Your task to perform on an android device: star an email in the gmail app Image 0: 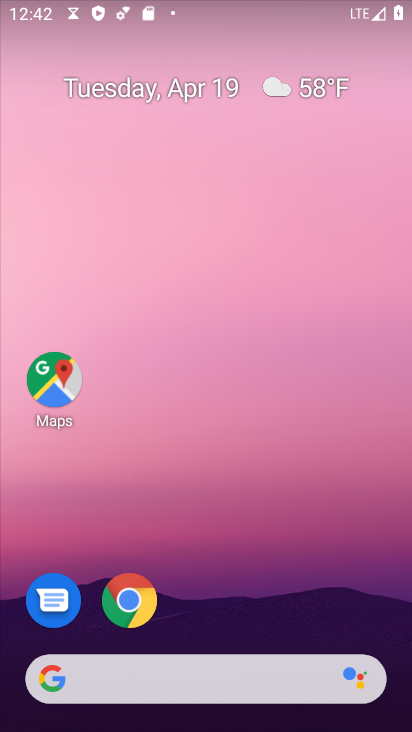
Step 0: drag from (229, 670) to (210, 151)
Your task to perform on an android device: star an email in the gmail app Image 1: 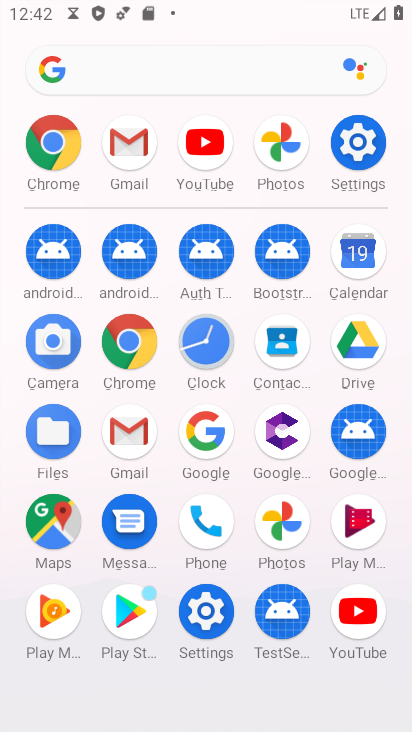
Step 1: click (118, 436)
Your task to perform on an android device: star an email in the gmail app Image 2: 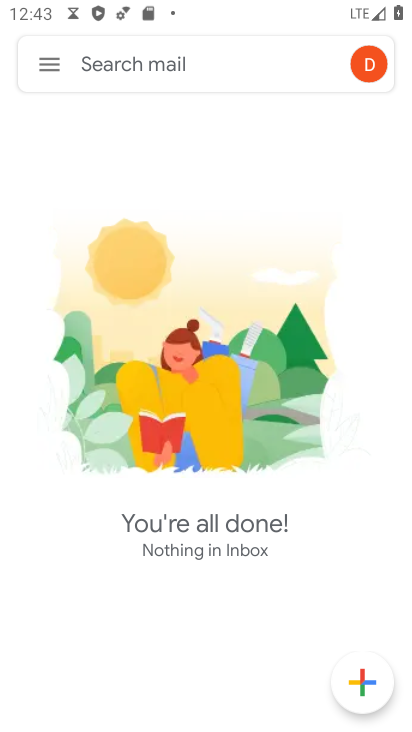
Step 2: click (51, 67)
Your task to perform on an android device: star an email in the gmail app Image 3: 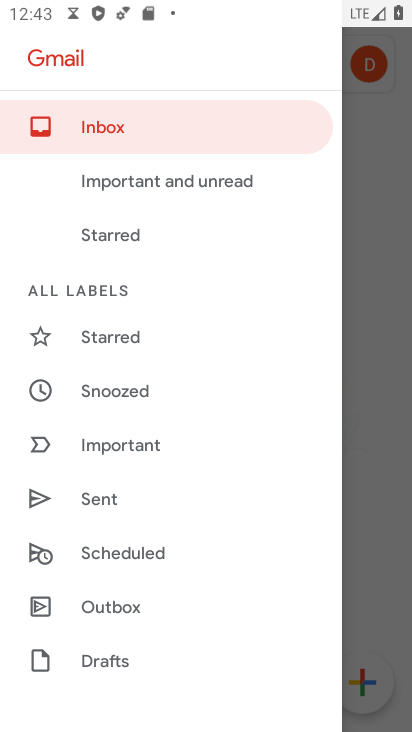
Step 3: drag from (98, 659) to (94, 326)
Your task to perform on an android device: star an email in the gmail app Image 4: 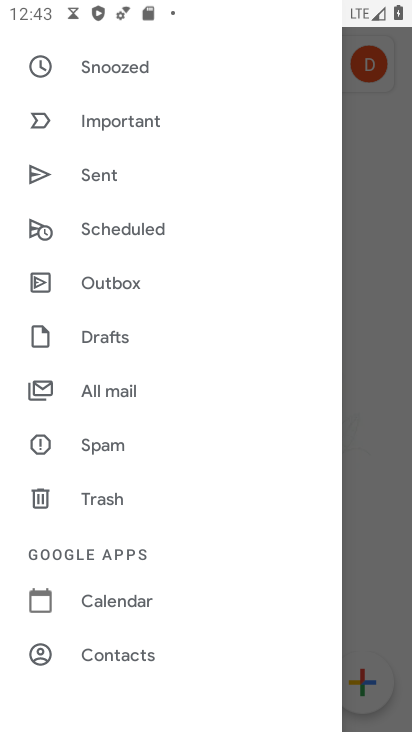
Step 4: click (120, 399)
Your task to perform on an android device: star an email in the gmail app Image 5: 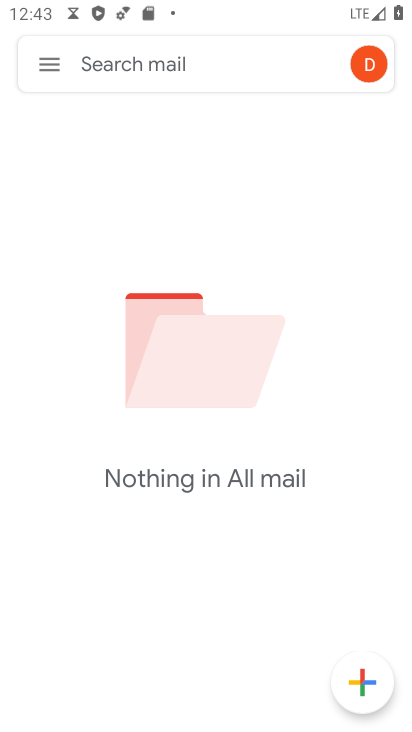
Step 5: task complete